Your task to perform on an android device: Search for sushi restaurants on Maps Image 0: 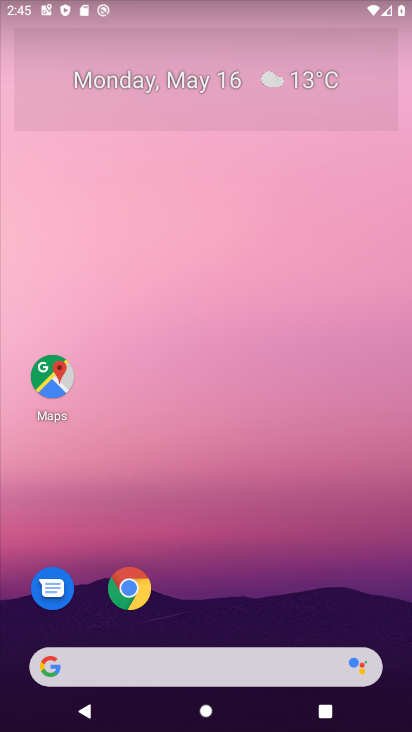
Step 0: drag from (170, 561) to (240, 2)
Your task to perform on an android device: Search for sushi restaurants on Maps Image 1: 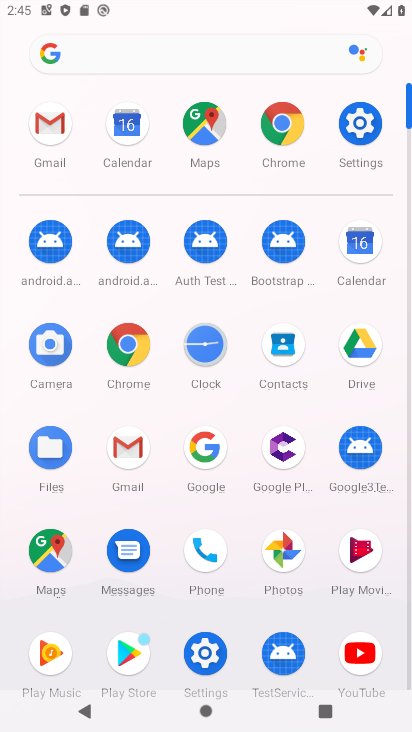
Step 1: click (63, 552)
Your task to perform on an android device: Search for sushi restaurants on Maps Image 2: 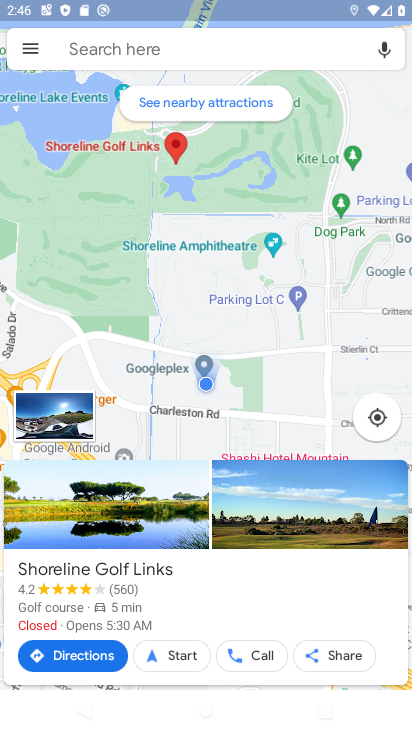
Step 2: click (239, 50)
Your task to perform on an android device: Search for sushi restaurants on Maps Image 3: 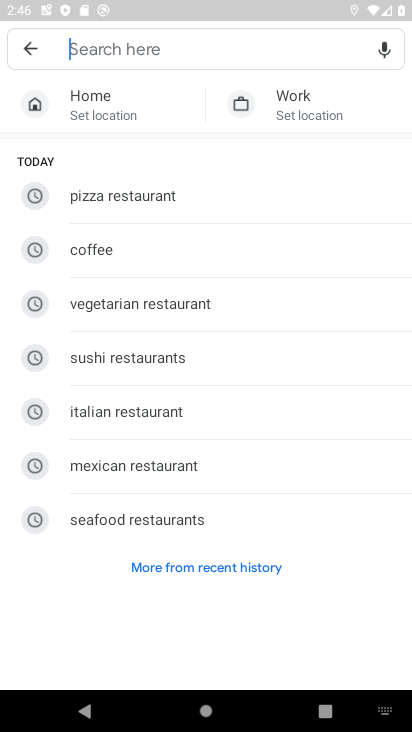
Step 3: click (112, 356)
Your task to perform on an android device: Search for sushi restaurants on Maps Image 4: 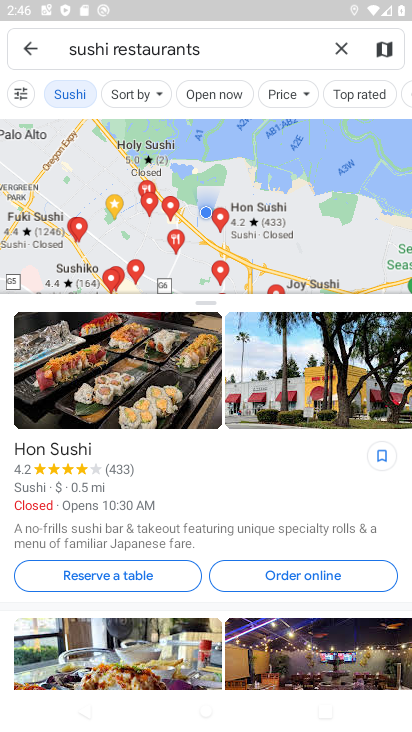
Step 4: task complete